Your task to perform on an android device: View the shopping cart on newegg.com. Add "usb-c to usb-a" to the cart on newegg.com Image 0: 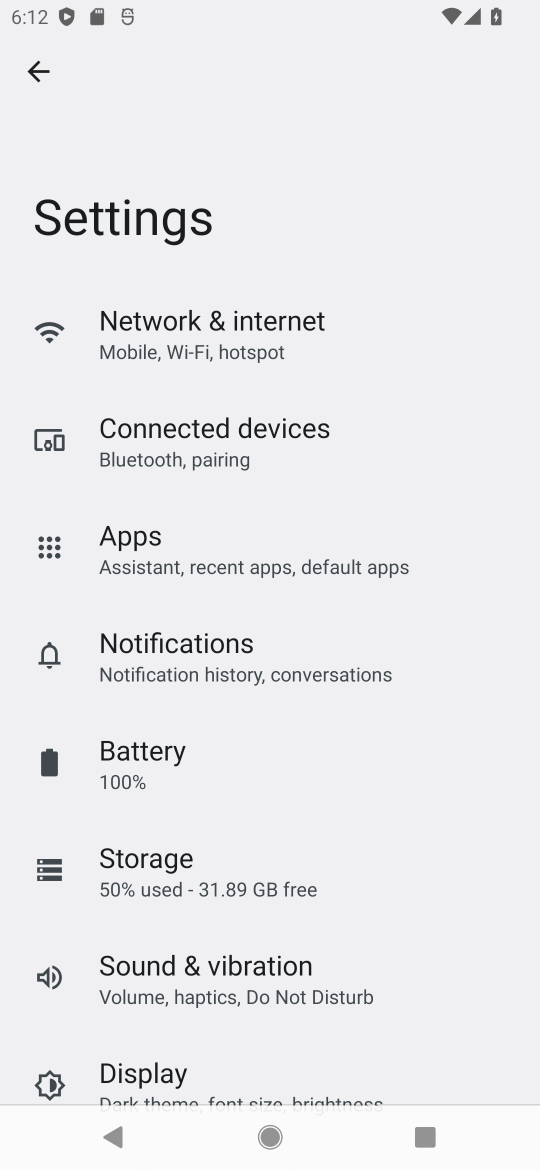
Step 0: press home button
Your task to perform on an android device: View the shopping cart on newegg.com. Add "usb-c to usb-a" to the cart on newegg.com Image 1: 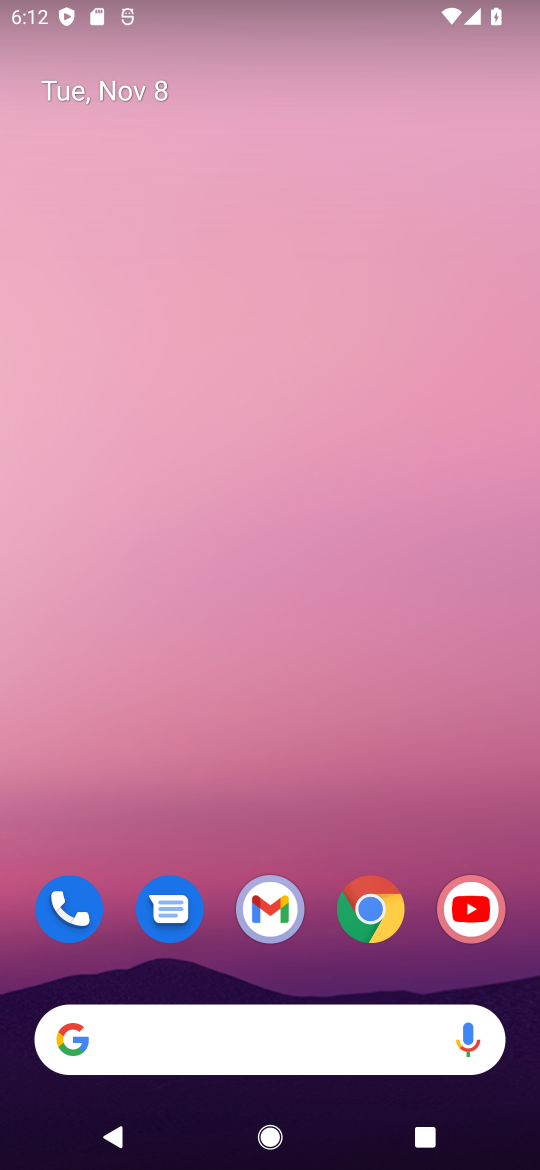
Step 1: click (368, 922)
Your task to perform on an android device: View the shopping cart on newegg.com. Add "usb-c to usb-a" to the cart on newegg.com Image 2: 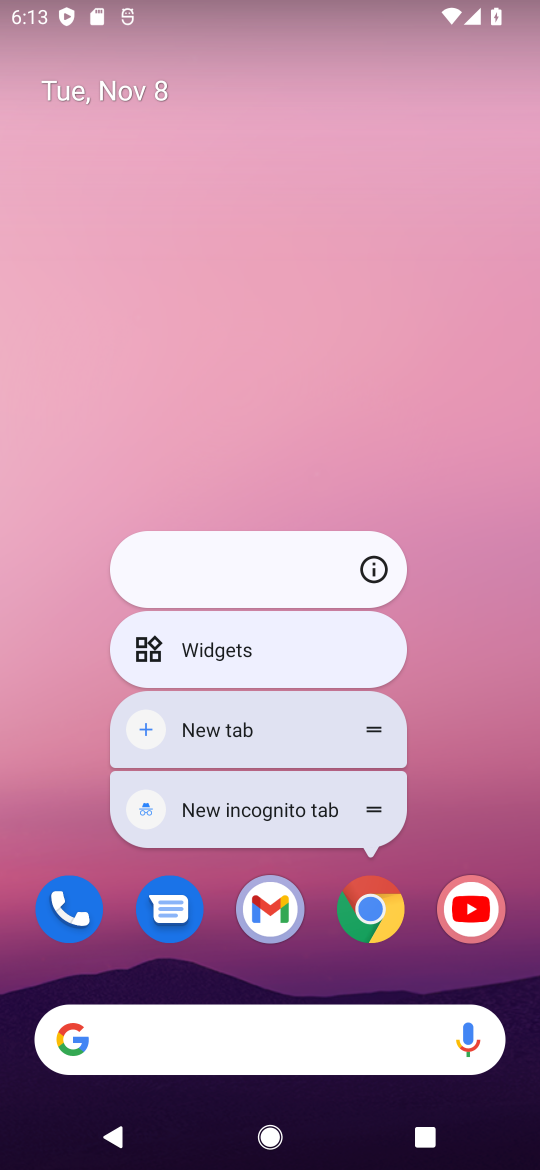
Step 2: click (368, 909)
Your task to perform on an android device: View the shopping cart on newegg.com. Add "usb-c to usb-a" to the cart on newegg.com Image 3: 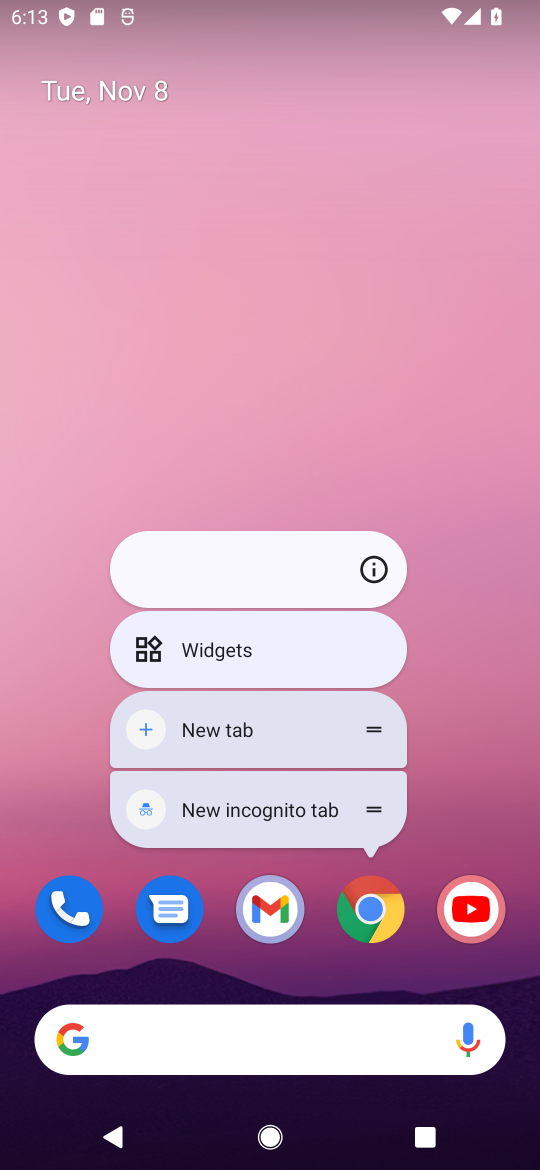
Step 3: click (368, 910)
Your task to perform on an android device: View the shopping cart on newegg.com. Add "usb-c to usb-a" to the cart on newegg.com Image 4: 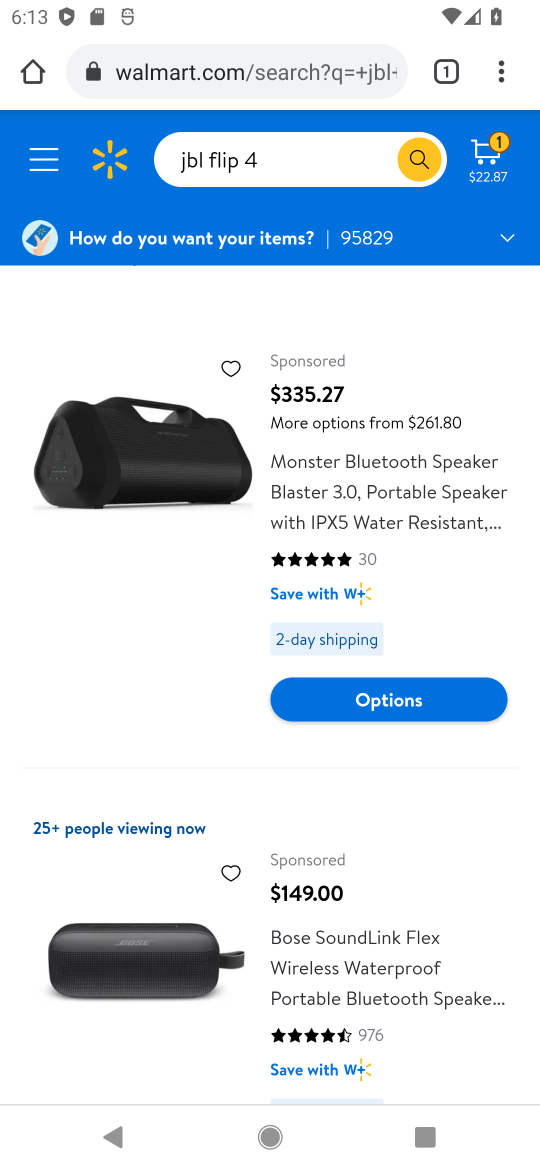
Step 4: click (244, 47)
Your task to perform on an android device: View the shopping cart on newegg.com. Add "usb-c to usb-a" to the cart on newegg.com Image 5: 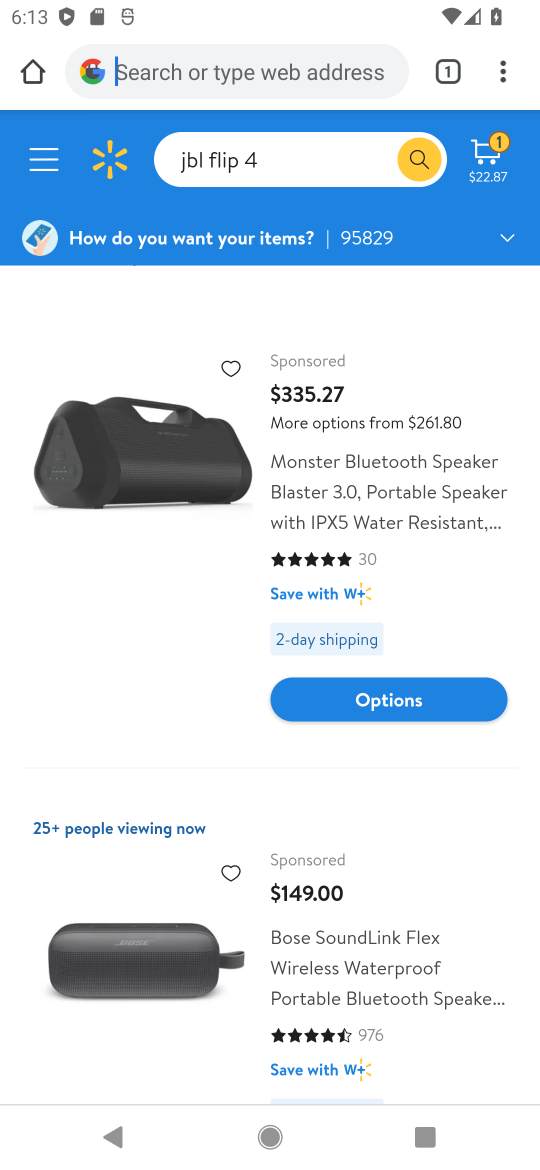
Step 5: click (245, 74)
Your task to perform on an android device: View the shopping cart on newegg.com. Add "usb-c to usb-a" to the cart on newegg.com Image 6: 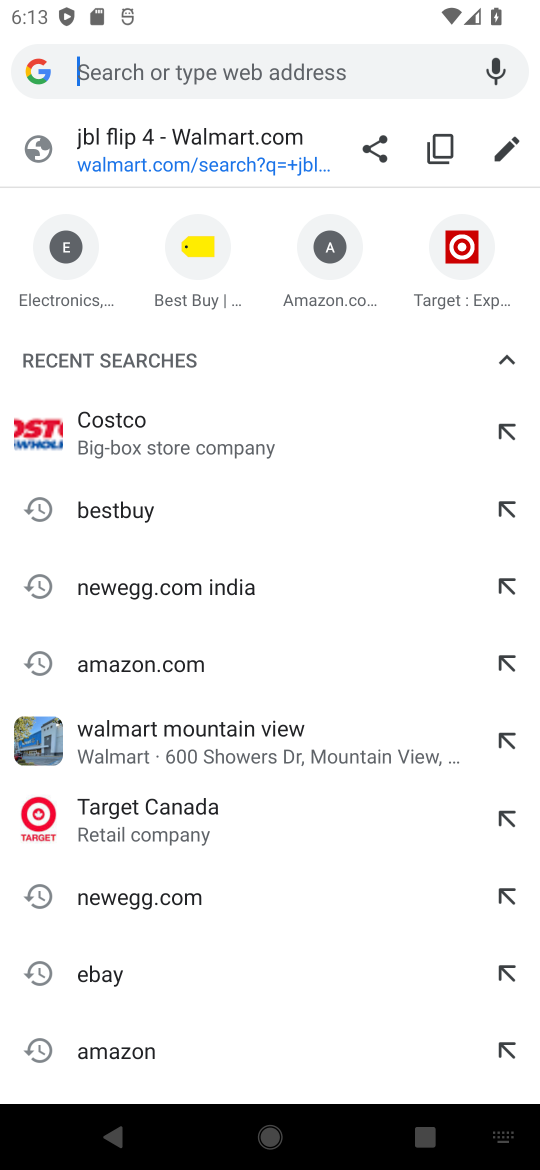
Step 6: click (138, 590)
Your task to perform on an android device: View the shopping cart on newegg.com. Add "usb-c to usb-a" to the cart on newegg.com Image 7: 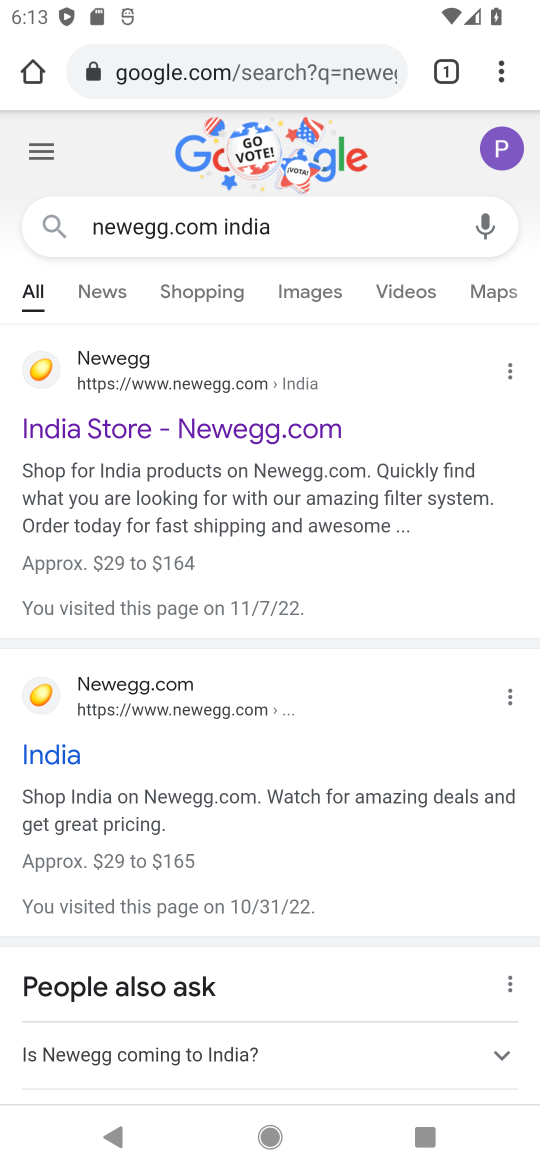
Step 7: click (178, 438)
Your task to perform on an android device: View the shopping cart on newegg.com. Add "usb-c to usb-a" to the cart on newegg.com Image 8: 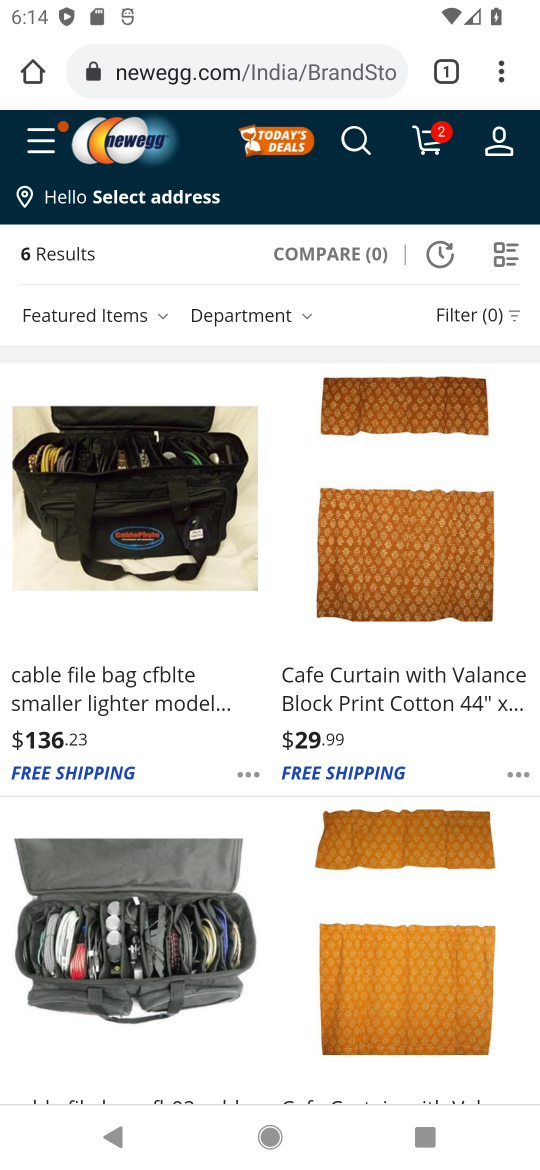
Step 8: click (359, 133)
Your task to perform on an android device: View the shopping cart on newegg.com. Add "usb-c to usb-a" to the cart on newegg.com Image 9: 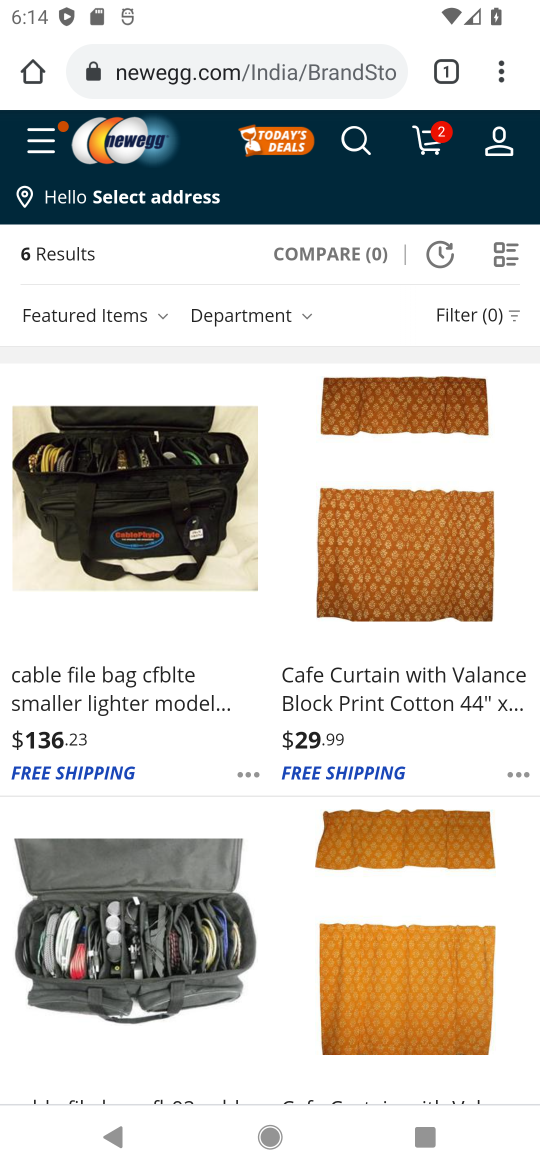
Step 9: click (355, 141)
Your task to perform on an android device: View the shopping cart on newegg.com. Add "usb-c to usb-a" to the cart on newegg.com Image 10: 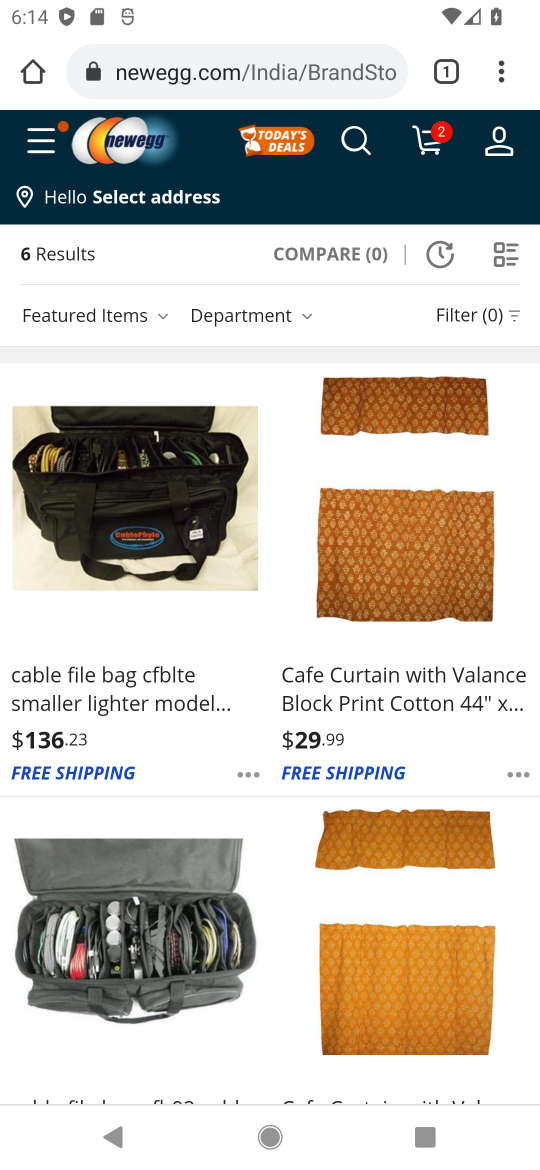
Step 10: click (347, 141)
Your task to perform on an android device: View the shopping cart on newegg.com. Add "usb-c to usb-a" to the cart on newegg.com Image 11: 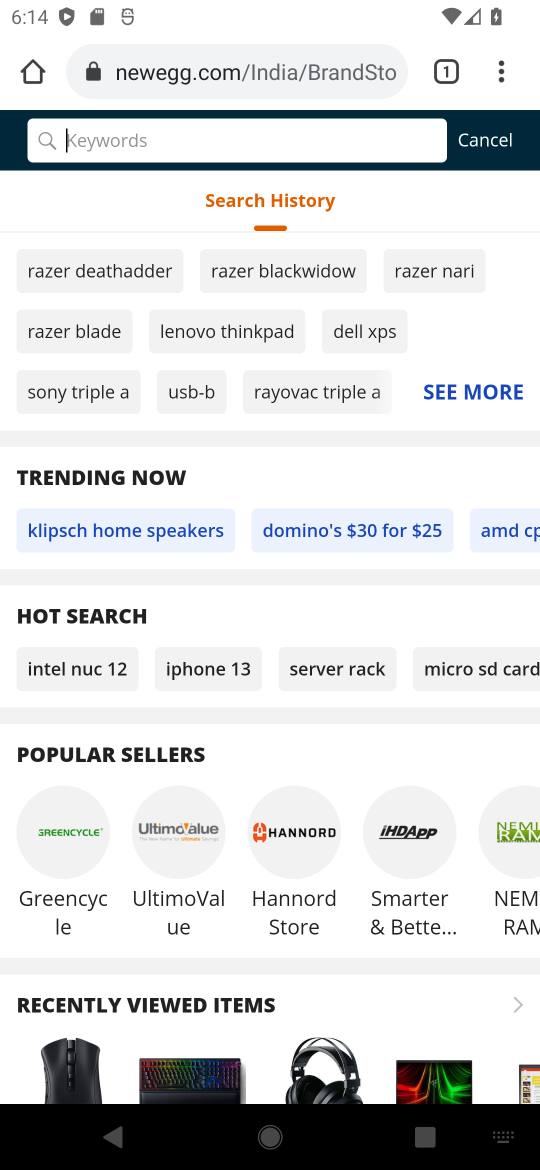
Step 11: click (122, 136)
Your task to perform on an android device: View the shopping cart on newegg.com. Add "usb-c to usb-a" to the cart on newegg.com Image 12: 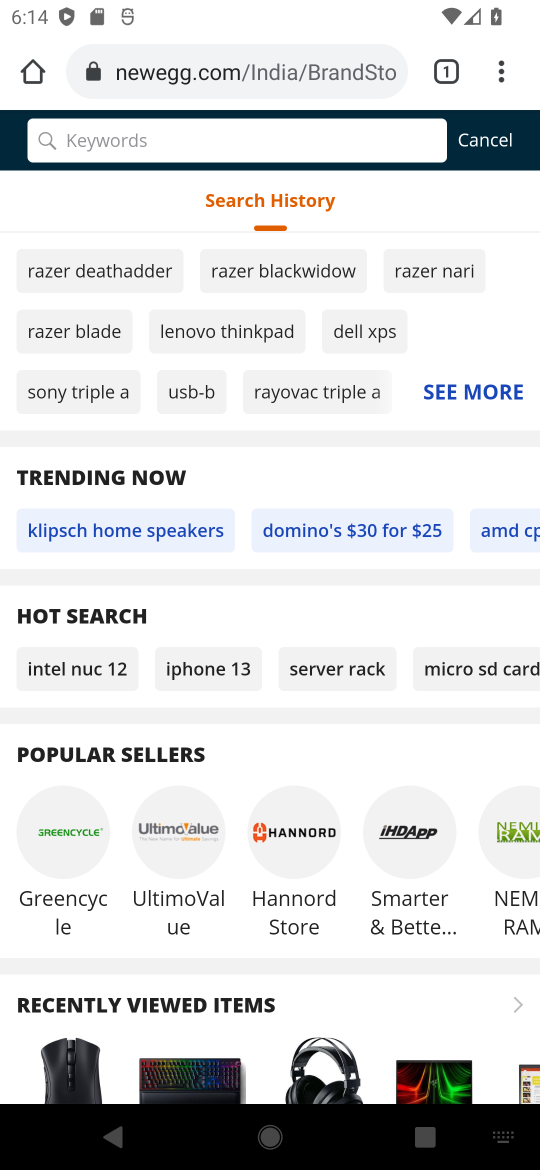
Step 12: type "usb-c to usb-a"
Your task to perform on an android device: View the shopping cart on newegg.com. Add "usb-c to usb-a" to the cart on newegg.com Image 13: 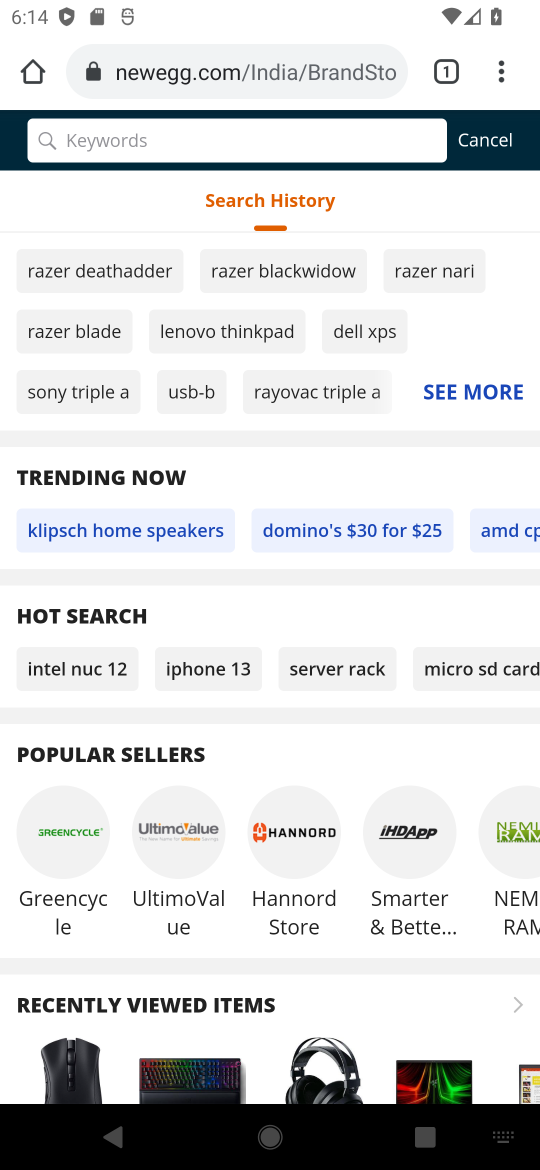
Step 13: press enter
Your task to perform on an android device: View the shopping cart on newegg.com. Add "usb-c to usb-a" to the cart on newegg.com Image 14: 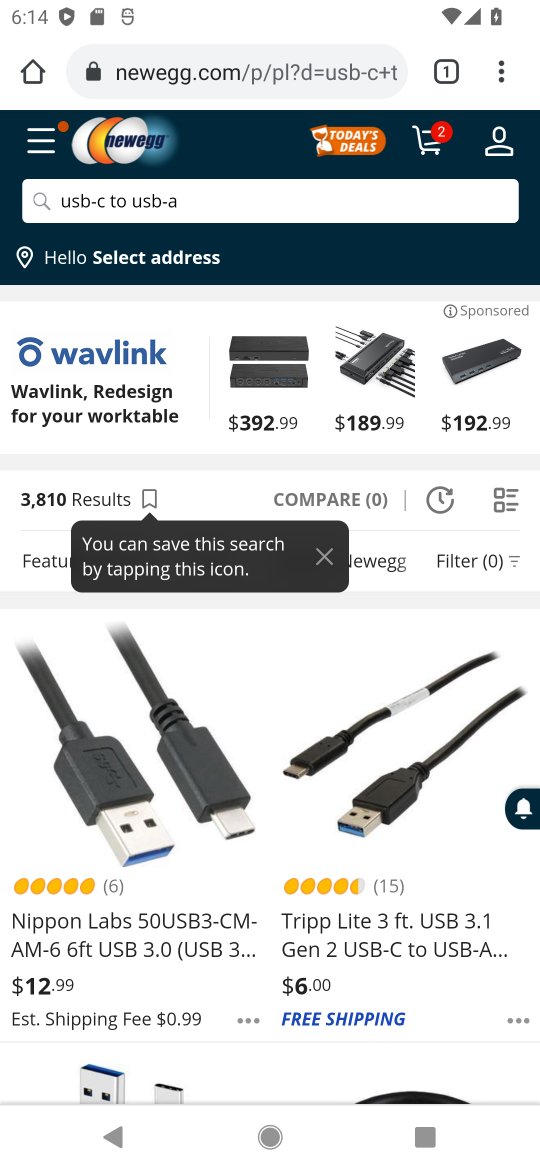
Step 14: drag from (270, 971) to (387, 722)
Your task to perform on an android device: View the shopping cart on newegg.com. Add "usb-c to usb-a" to the cart on newegg.com Image 15: 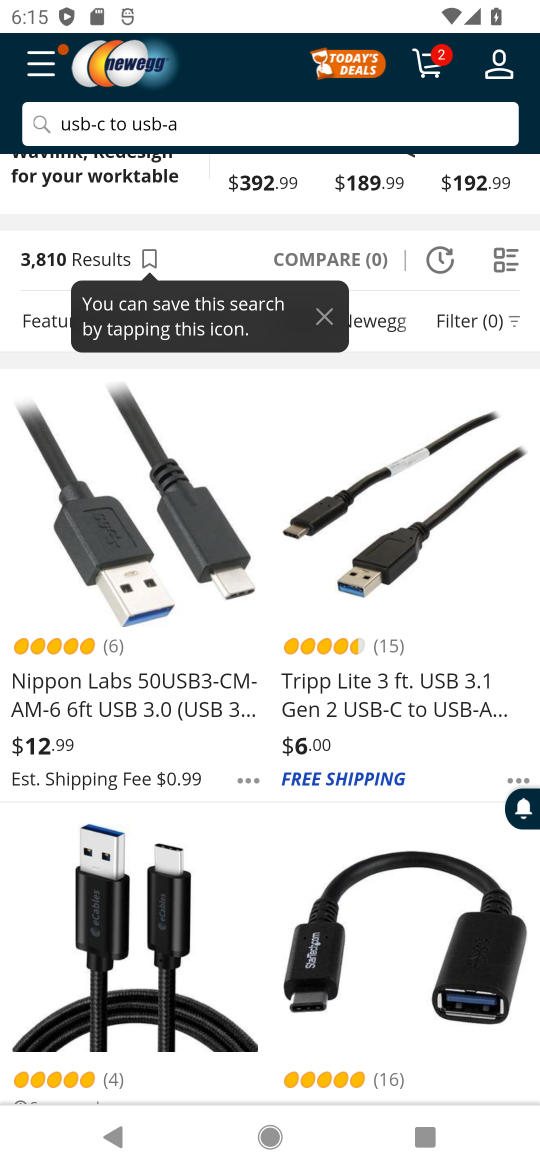
Step 15: click (140, 695)
Your task to perform on an android device: View the shopping cart on newegg.com. Add "usb-c to usb-a" to the cart on newegg.com Image 16: 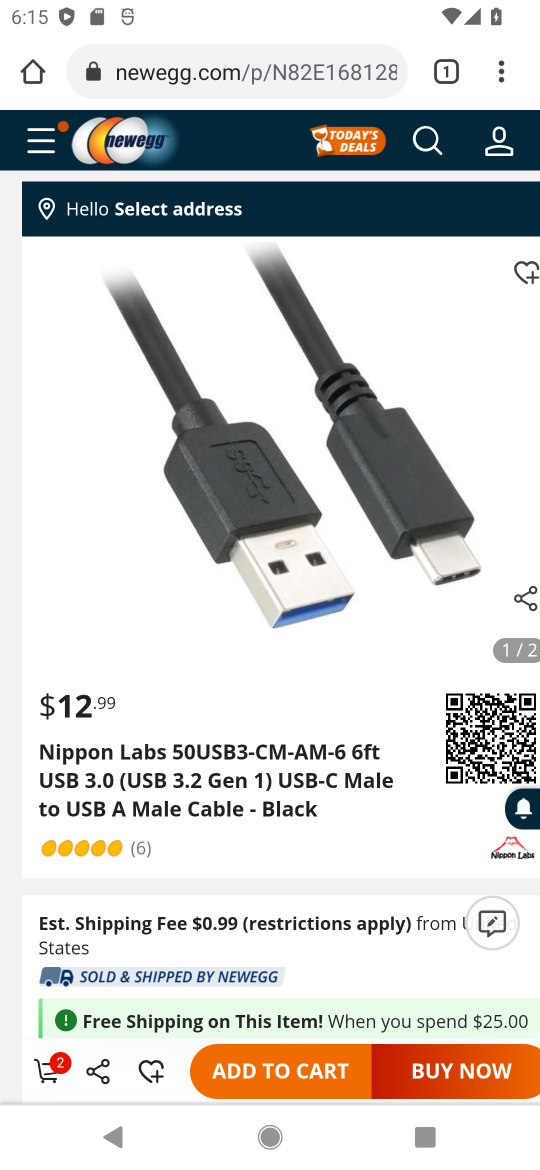
Step 16: drag from (268, 925) to (272, 817)
Your task to perform on an android device: View the shopping cart on newegg.com. Add "usb-c to usb-a" to the cart on newegg.com Image 17: 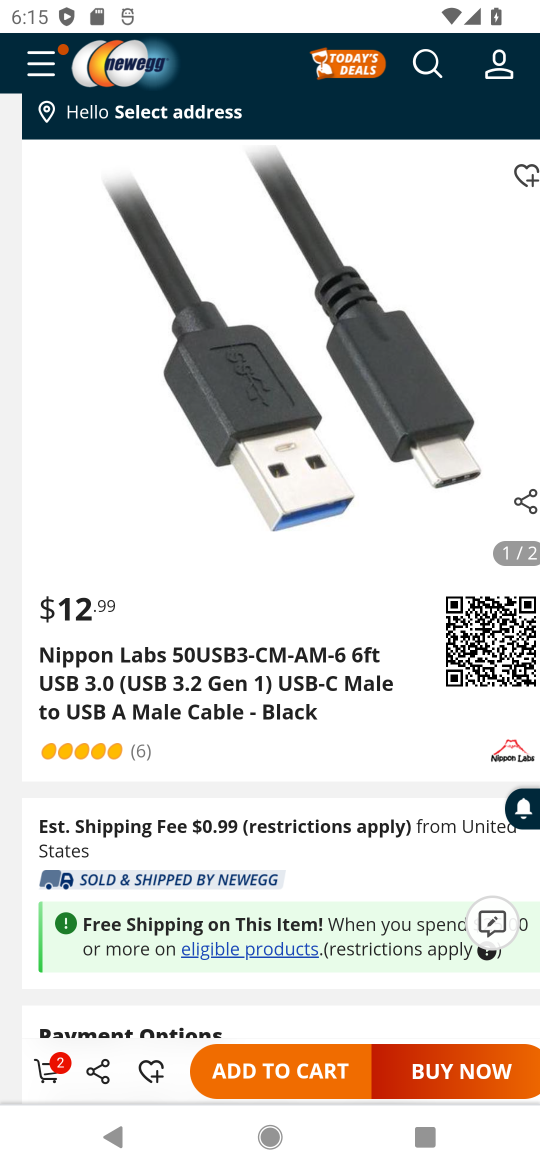
Step 17: click (297, 1080)
Your task to perform on an android device: View the shopping cart on newegg.com. Add "usb-c to usb-a" to the cart on newegg.com Image 18: 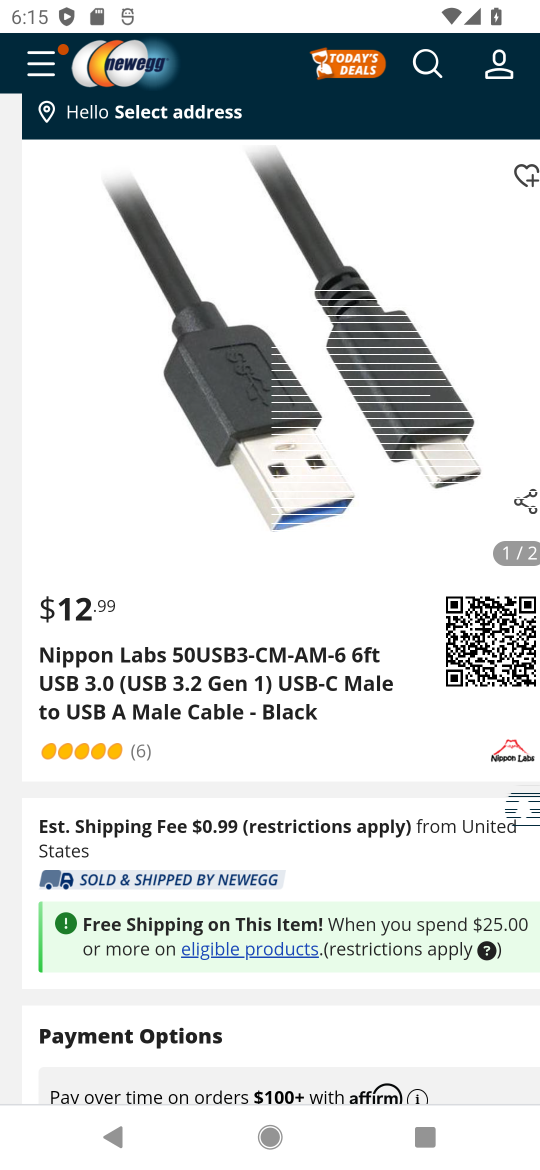
Step 18: click (56, 1064)
Your task to perform on an android device: View the shopping cart on newegg.com. Add "usb-c to usb-a" to the cart on newegg.com Image 19: 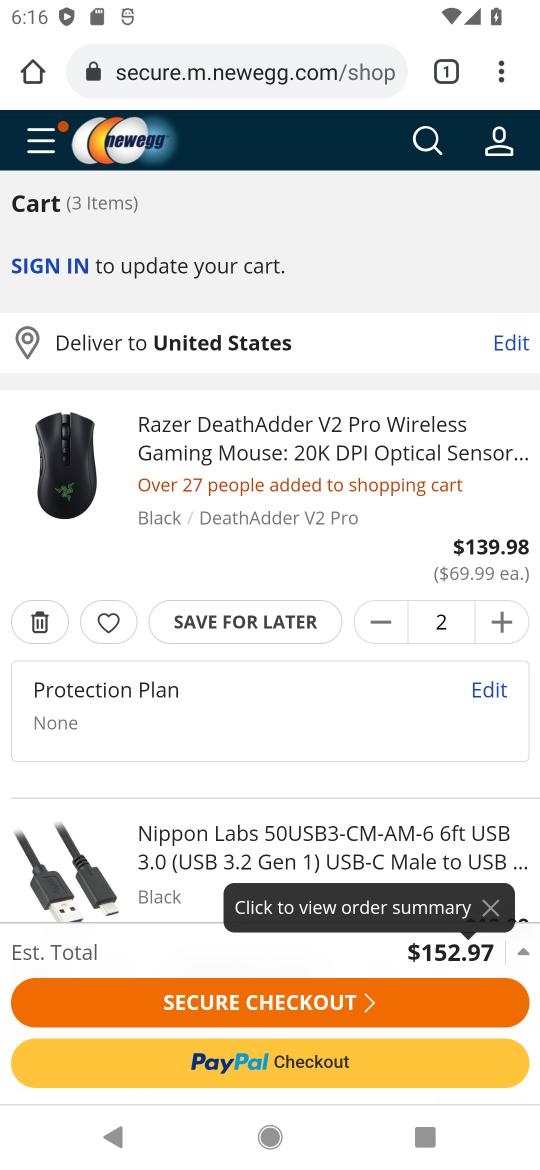
Step 19: click (38, 618)
Your task to perform on an android device: View the shopping cart on newegg.com. Add "usb-c to usb-a" to the cart on newegg.com Image 20: 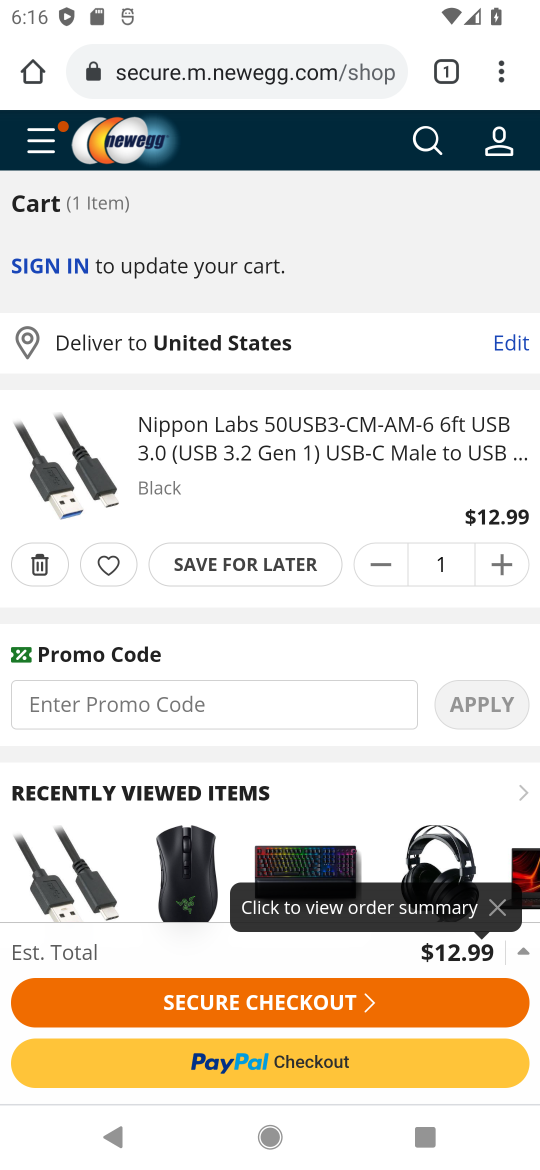
Step 20: task complete